Your task to perform on an android device: Open the web browser Image 0: 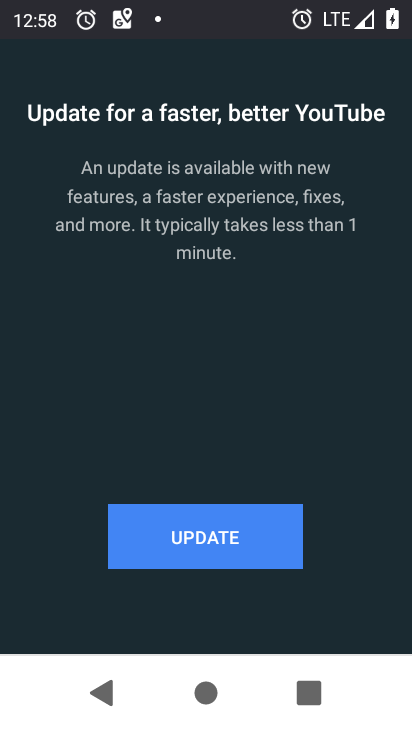
Step 0: press home button
Your task to perform on an android device: Open the web browser Image 1: 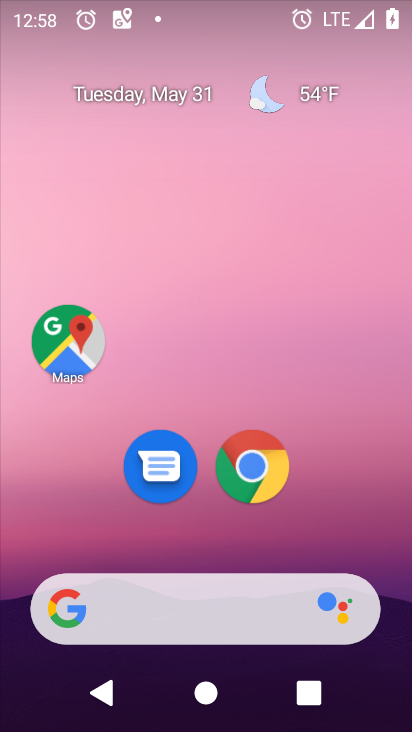
Step 1: click (249, 470)
Your task to perform on an android device: Open the web browser Image 2: 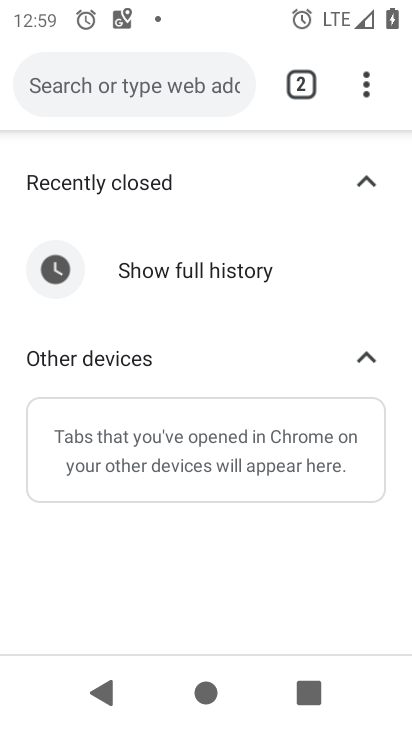
Step 2: task complete